Your task to perform on an android device: Open battery settings Image 0: 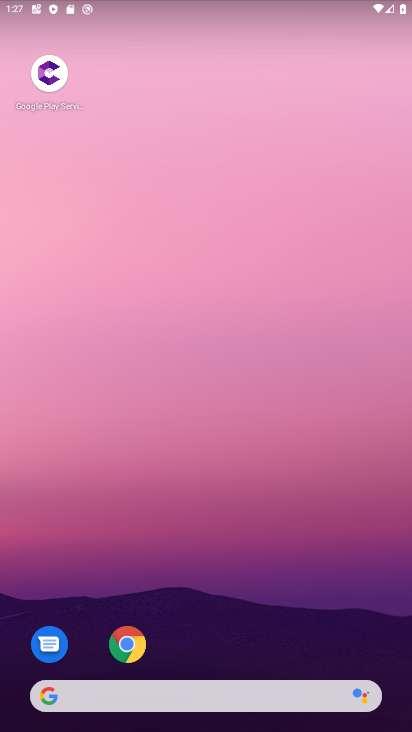
Step 0: drag from (254, 643) to (254, 174)
Your task to perform on an android device: Open battery settings Image 1: 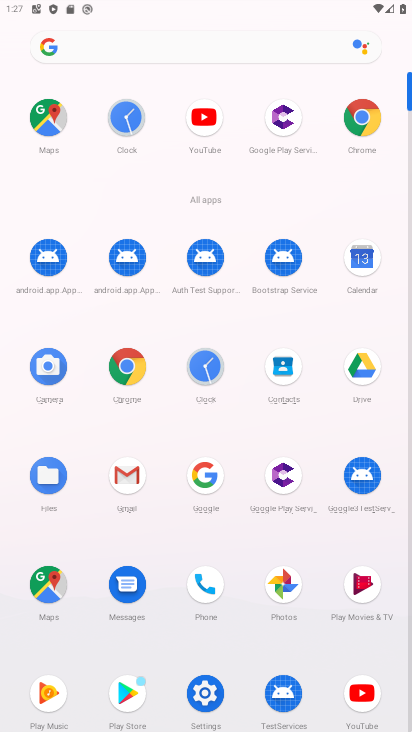
Step 1: click (205, 706)
Your task to perform on an android device: Open battery settings Image 2: 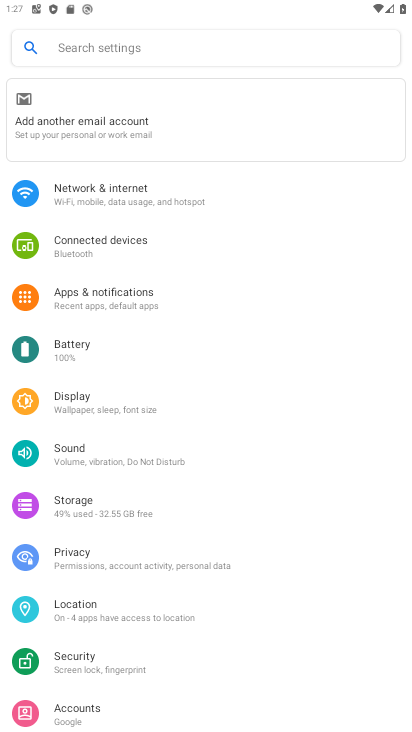
Step 2: click (104, 342)
Your task to perform on an android device: Open battery settings Image 3: 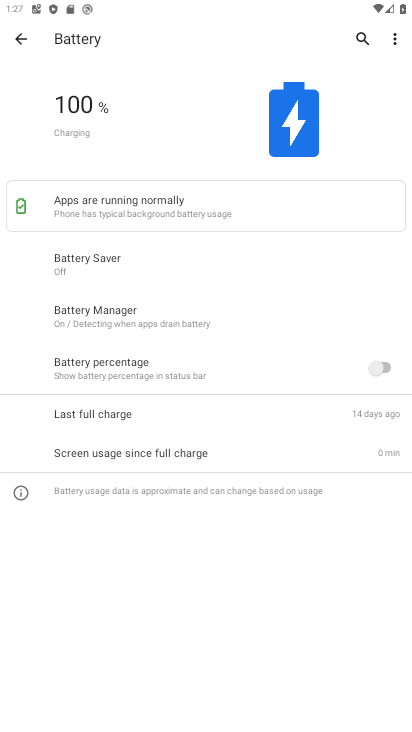
Step 3: task complete